Your task to perform on an android device: Open Chrome and go to settings Image 0: 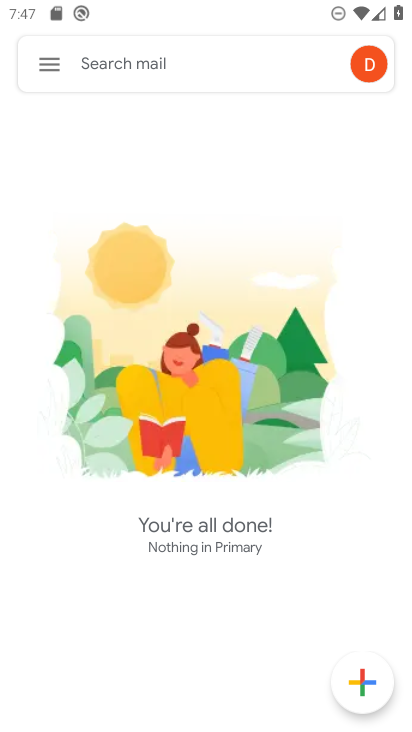
Step 0: press home button
Your task to perform on an android device: Open Chrome and go to settings Image 1: 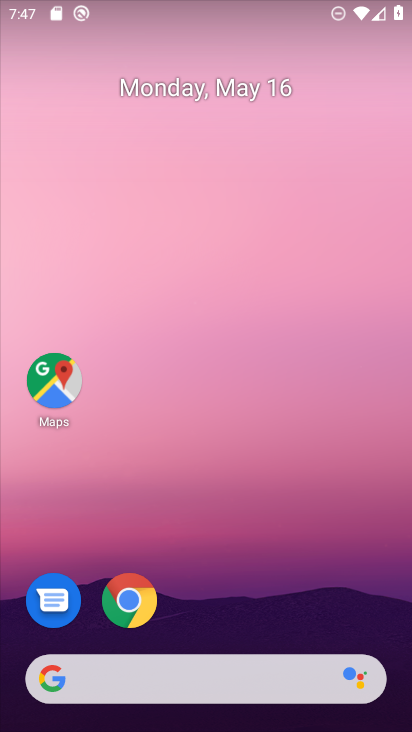
Step 1: click (134, 597)
Your task to perform on an android device: Open Chrome and go to settings Image 2: 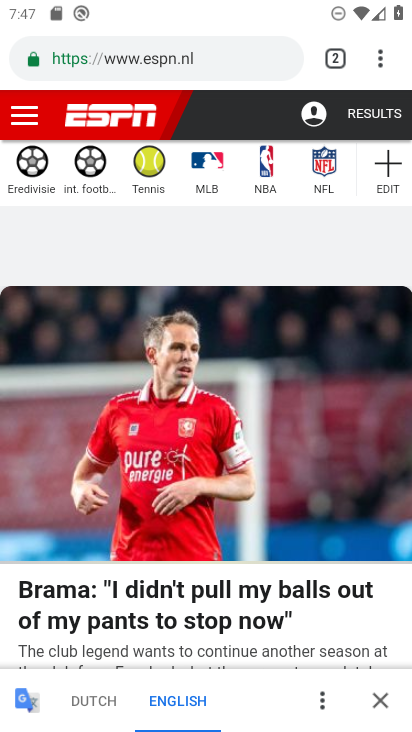
Step 2: task complete